Your task to perform on an android device: Open Google Maps and go to "Timeline" Image 0: 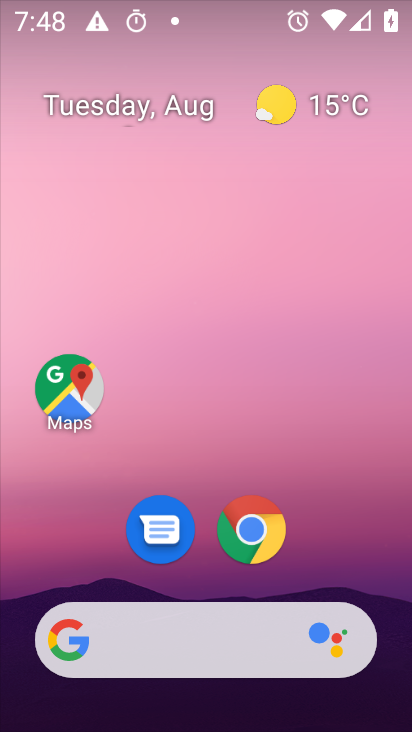
Step 0: press home button
Your task to perform on an android device: Open Google Maps and go to "Timeline" Image 1: 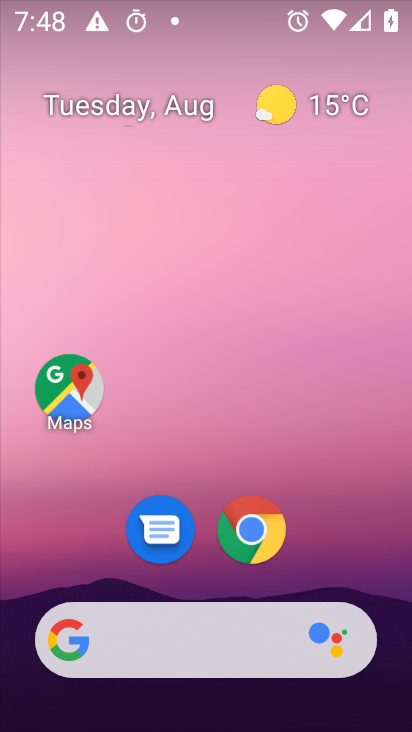
Step 1: click (58, 392)
Your task to perform on an android device: Open Google Maps and go to "Timeline" Image 2: 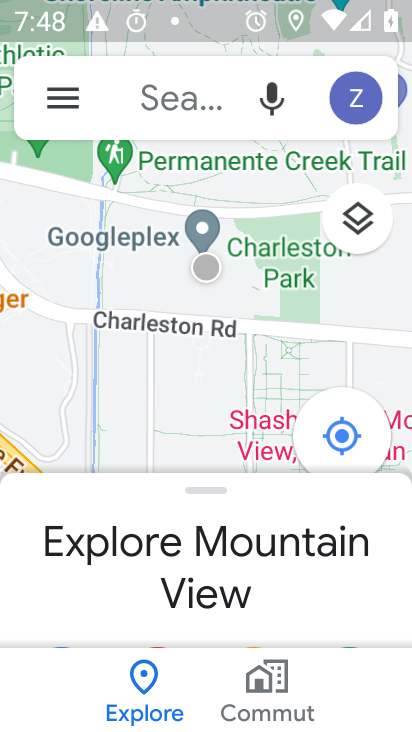
Step 2: click (53, 97)
Your task to perform on an android device: Open Google Maps and go to "Timeline" Image 3: 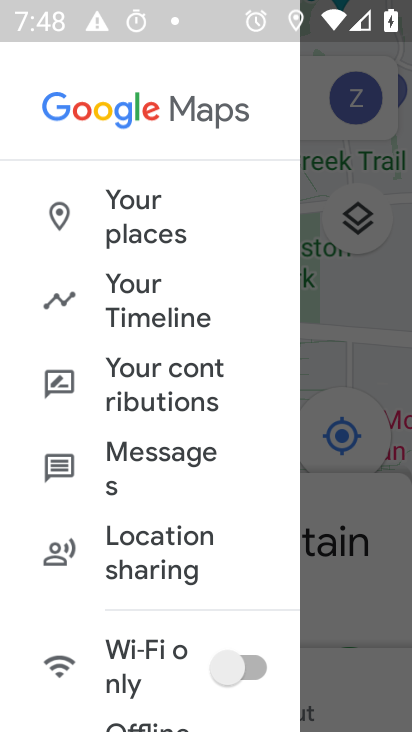
Step 3: click (137, 315)
Your task to perform on an android device: Open Google Maps and go to "Timeline" Image 4: 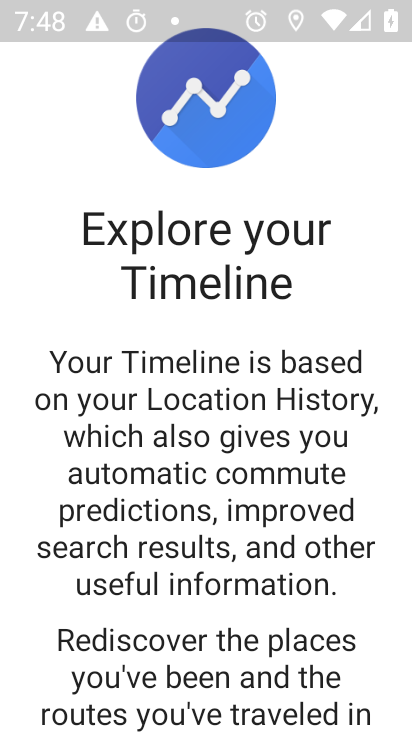
Step 4: drag from (378, 634) to (373, 44)
Your task to perform on an android device: Open Google Maps and go to "Timeline" Image 5: 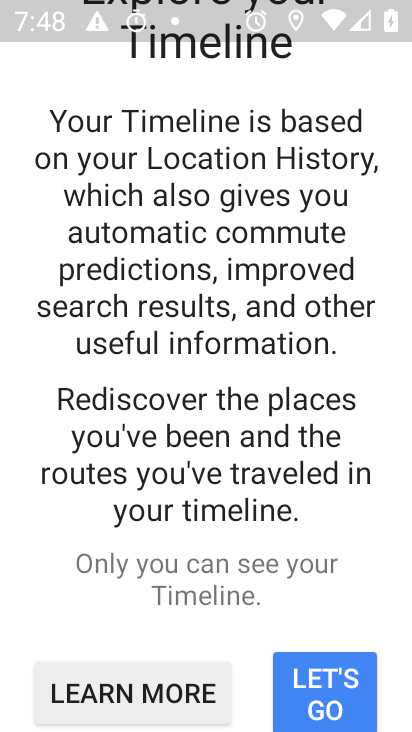
Step 5: click (339, 661)
Your task to perform on an android device: Open Google Maps and go to "Timeline" Image 6: 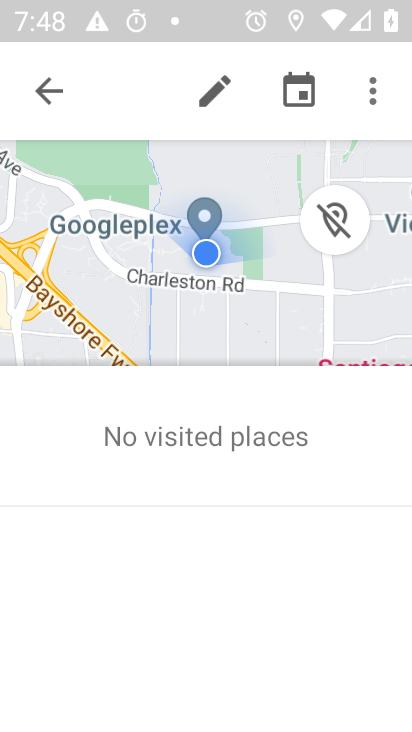
Step 6: task complete